Your task to perform on an android device: Open the stopwatch Image 0: 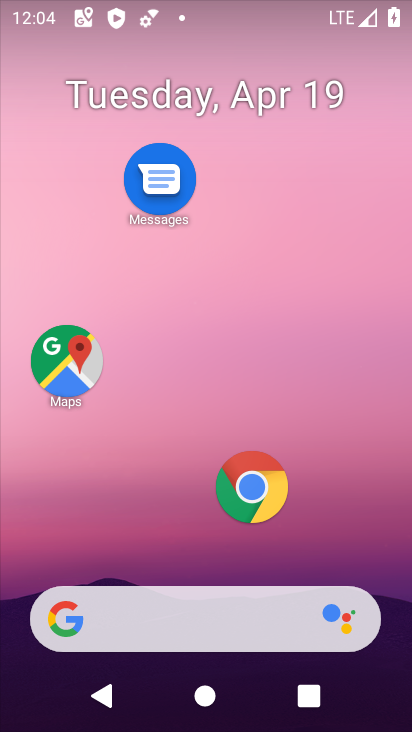
Step 0: drag from (201, 299) to (262, 27)
Your task to perform on an android device: Open the stopwatch Image 1: 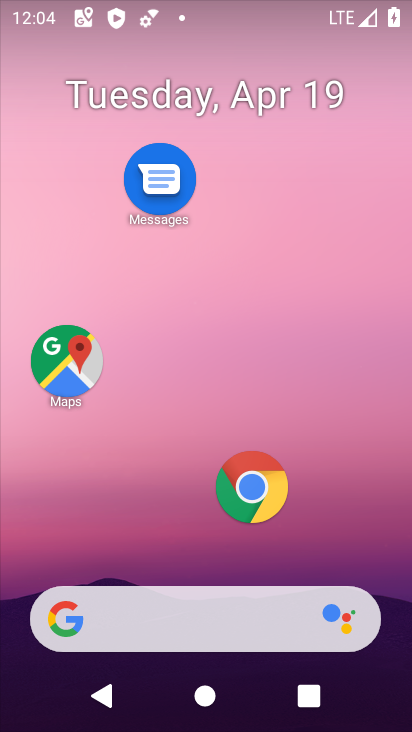
Step 1: drag from (148, 551) to (166, 79)
Your task to perform on an android device: Open the stopwatch Image 2: 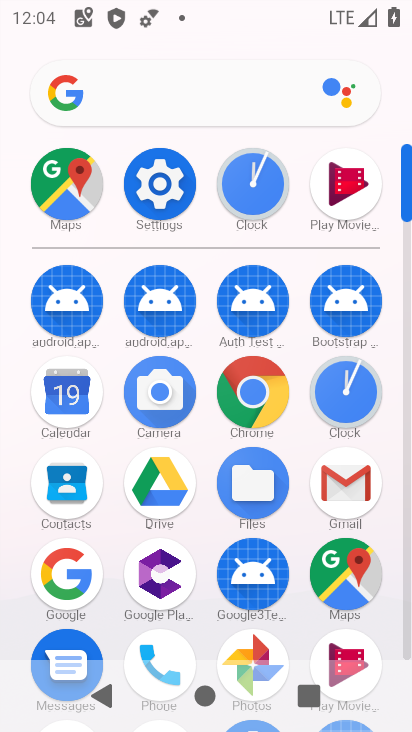
Step 2: click (335, 389)
Your task to perform on an android device: Open the stopwatch Image 3: 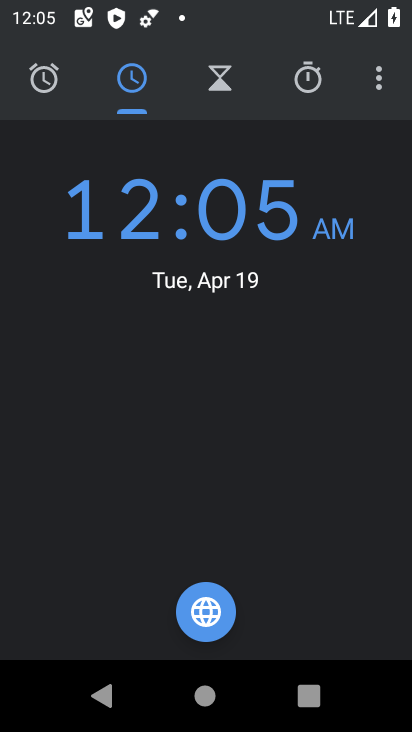
Step 3: click (305, 80)
Your task to perform on an android device: Open the stopwatch Image 4: 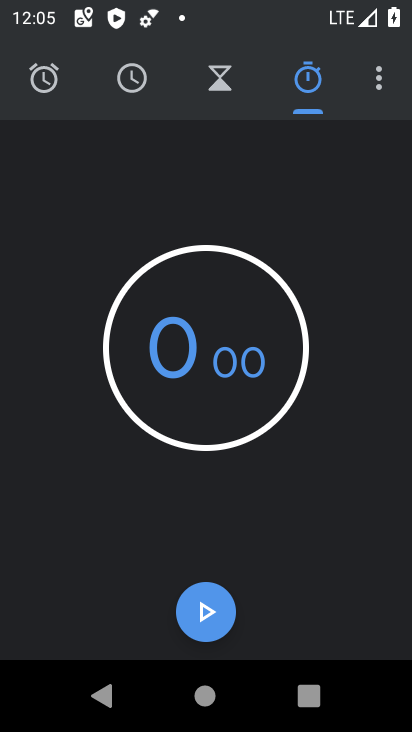
Step 4: task complete